Your task to perform on an android device: Open calendar and show me the fourth week of next month Image 0: 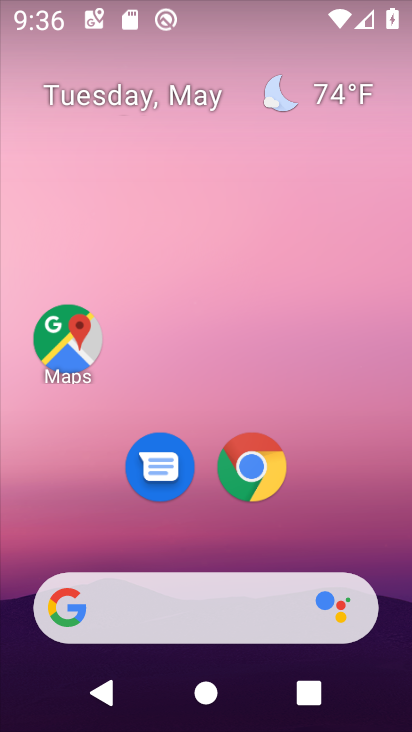
Step 0: drag from (371, 527) to (351, 73)
Your task to perform on an android device: Open calendar and show me the fourth week of next month Image 1: 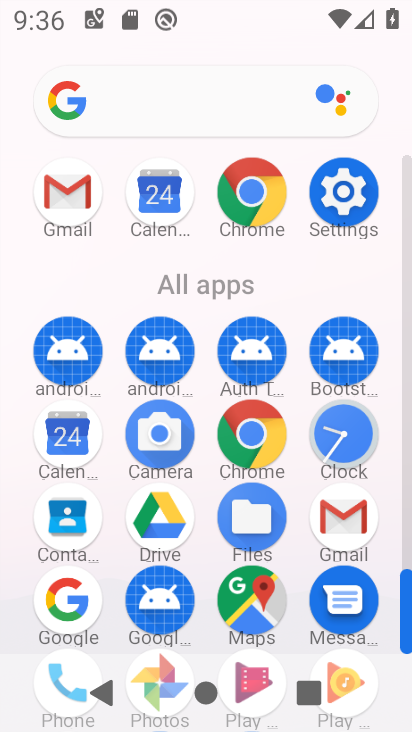
Step 1: click (76, 430)
Your task to perform on an android device: Open calendar and show me the fourth week of next month Image 2: 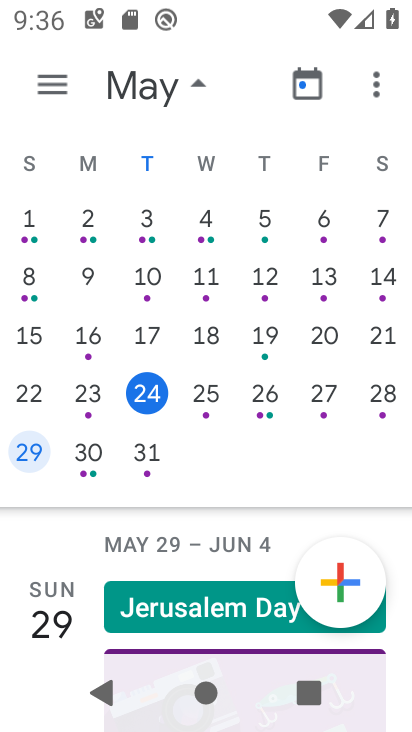
Step 2: drag from (389, 308) to (0, 274)
Your task to perform on an android device: Open calendar and show me the fourth week of next month Image 3: 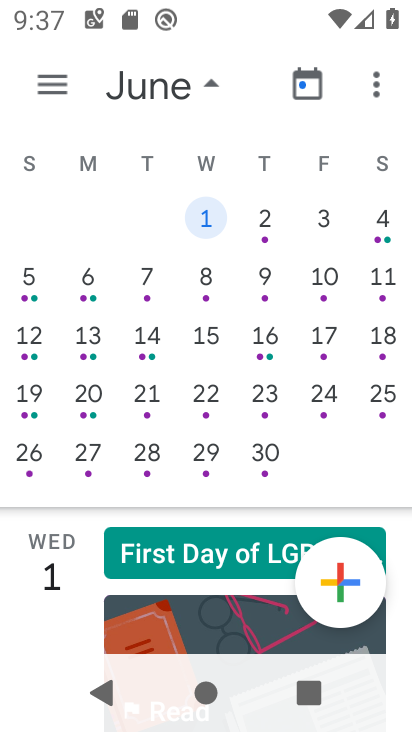
Step 3: click (35, 397)
Your task to perform on an android device: Open calendar and show me the fourth week of next month Image 4: 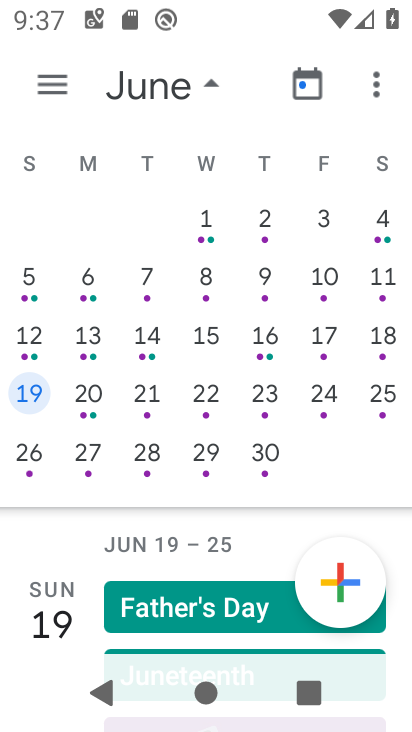
Step 4: task complete